Your task to perform on an android device: Open accessibility settings Image 0: 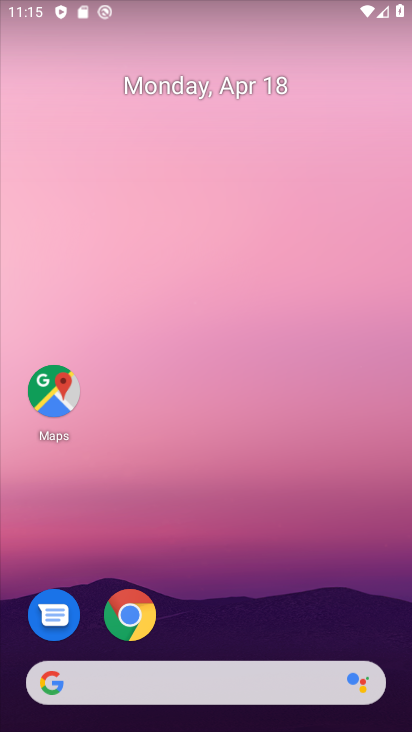
Step 0: drag from (213, 713) to (196, 100)
Your task to perform on an android device: Open accessibility settings Image 1: 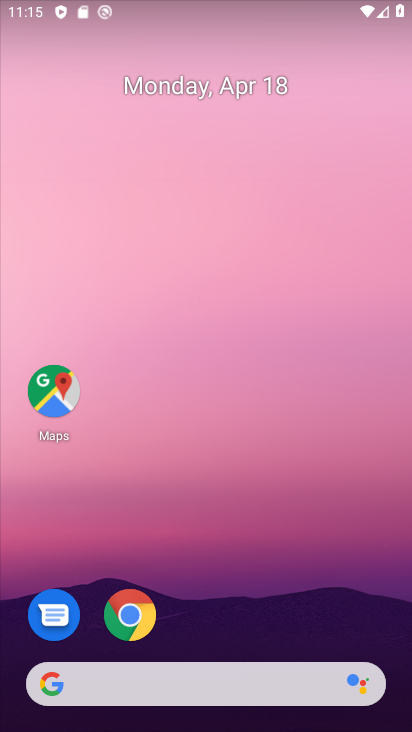
Step 1: drag from (215, 716) to (210, 5)
Your task to perform on an android device: Open accessibility settings Image 2: 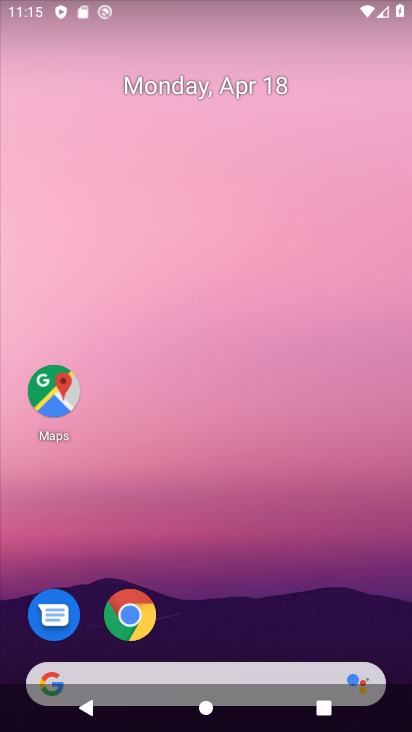
Step 2: drag from (220, 555) to (220, 107)
Your task to perform on an android device: Open accessibility settings Image 3: 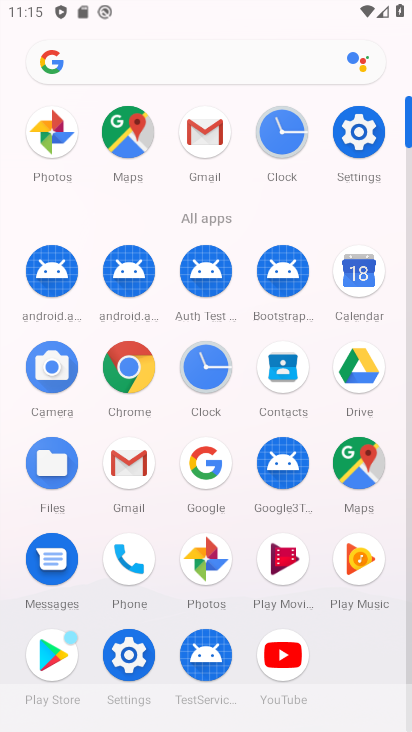
Step 3: drag from (209, 724) to (222, 101)
Your task to perform on an android device: Open accessibility settings Image 4: 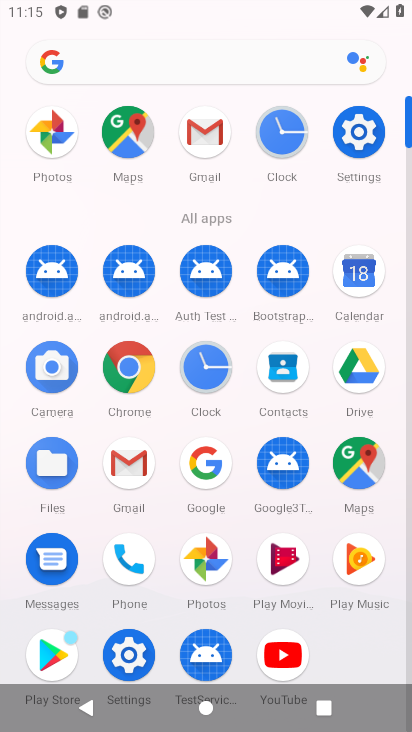
Step 4: click (364, 124)
Your task to perform on an android device: Open accessibility settings Image 5: 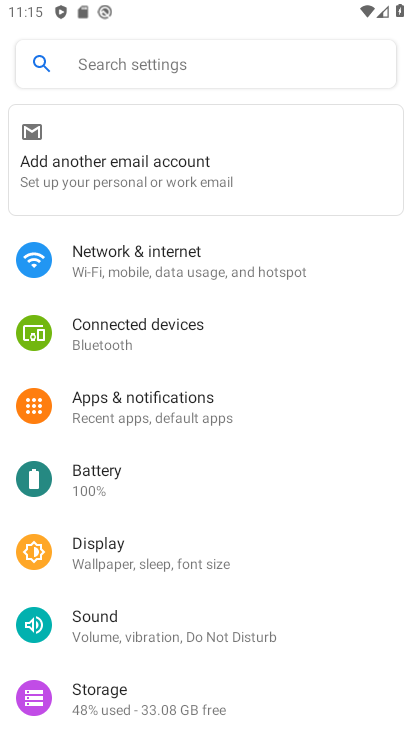
Step 5: drag from (176, 666) to (172, 108)
Your task to perform on an android device: Open accessibility settings Image 6: 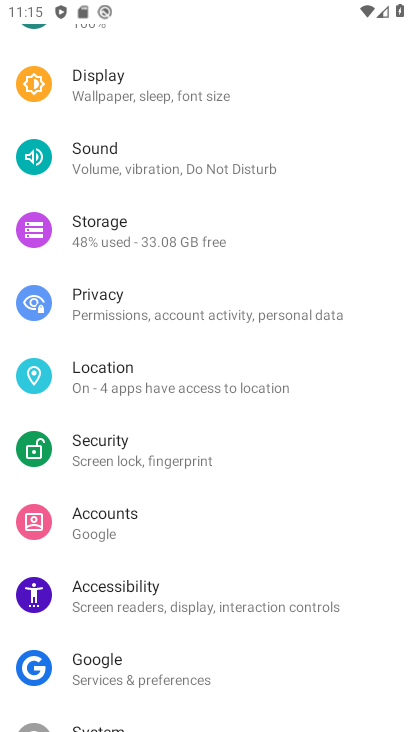
Step 6: click (113, 587)
Your task to perform on an android device: Open accessibility settings Image 7: 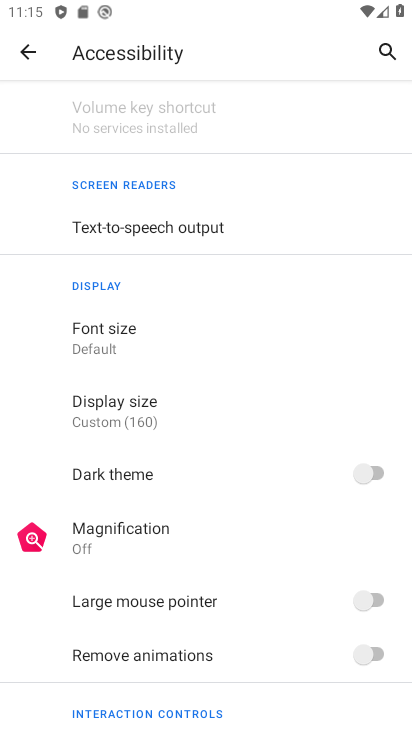
Step 7: task complete